Your task to perform on an android device: Go to display settings Image 0: 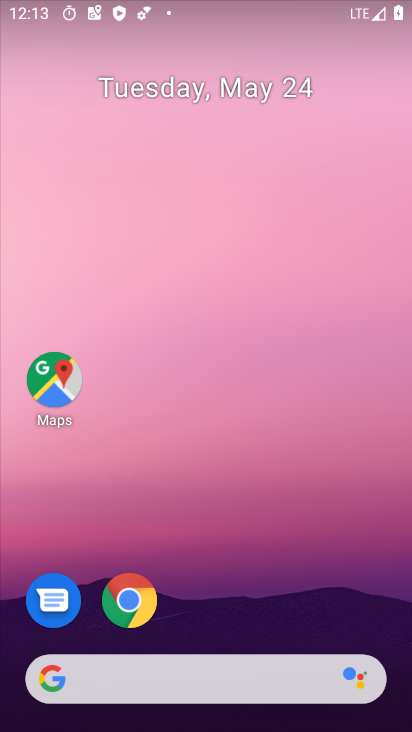
Step 0: drag from (326, 545) to (230, 117)
Your task to perform on an android device: Go to display settings Image 1: 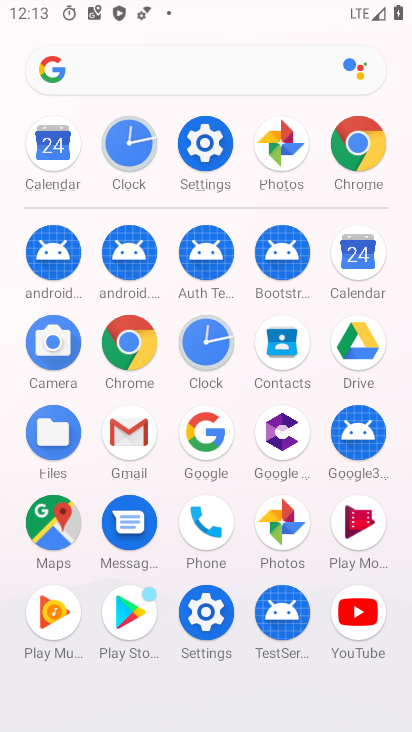
Step 1: click (205, 150)
Your task to perform on an android device: Go to display settings Image 2: 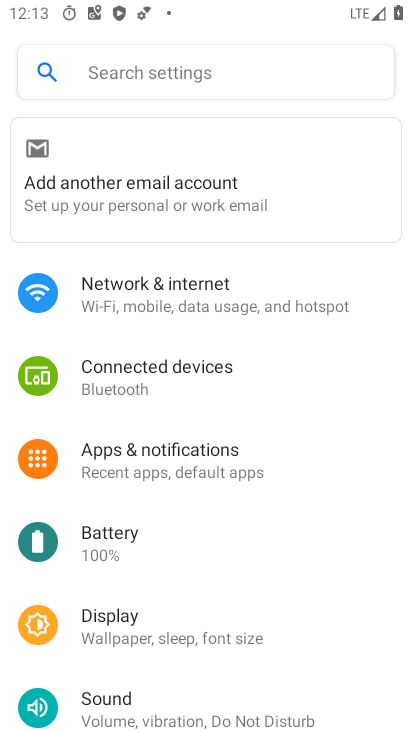
Step 2: click (177, 634)
Your task to perform on an android device: Go to display settings Image 3: 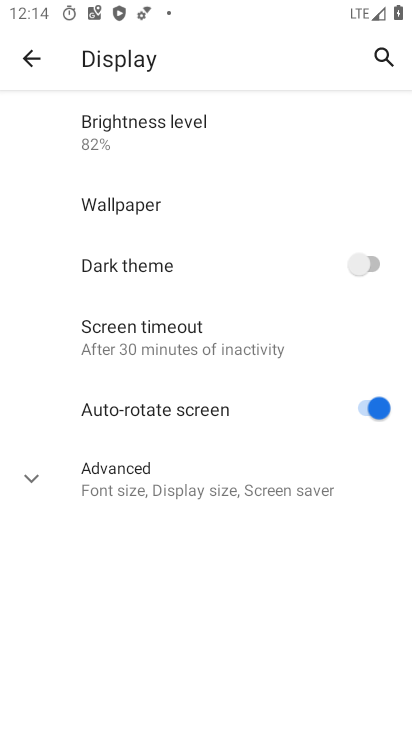
Step 3: task complete